Your task to perform on an android device: allow notifications from all sites in the chrome app Image 0: 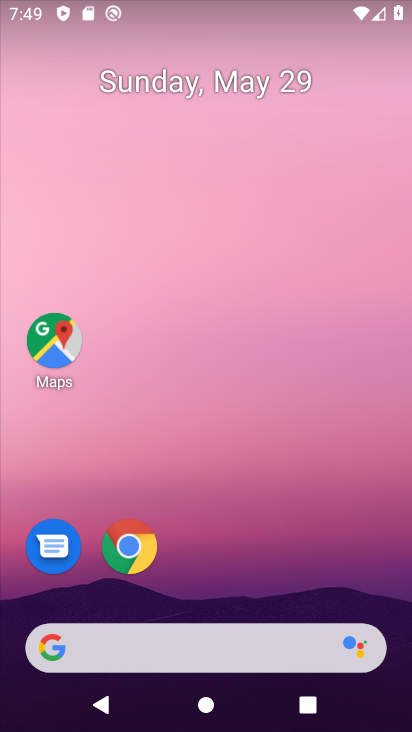
Step 0: drag from (216, 615) to (205, 212)
Your task to perform on an android device: allow notifications from all sites in the chrome app Image 1: 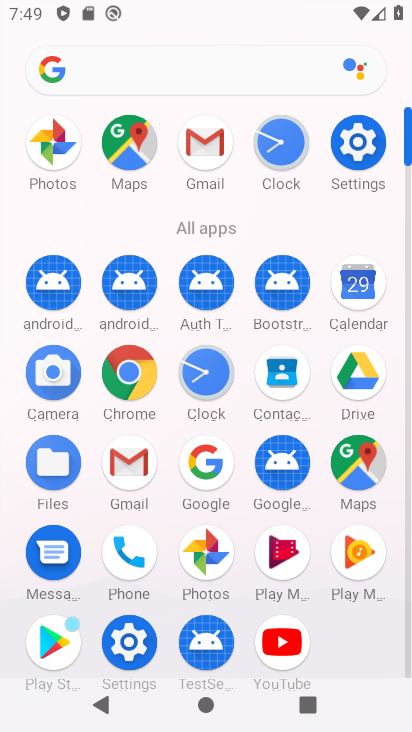
Step 1: click (135, 360)
Your task to perform on an android device: allow notifications from all sites in the chrome app Image 2: 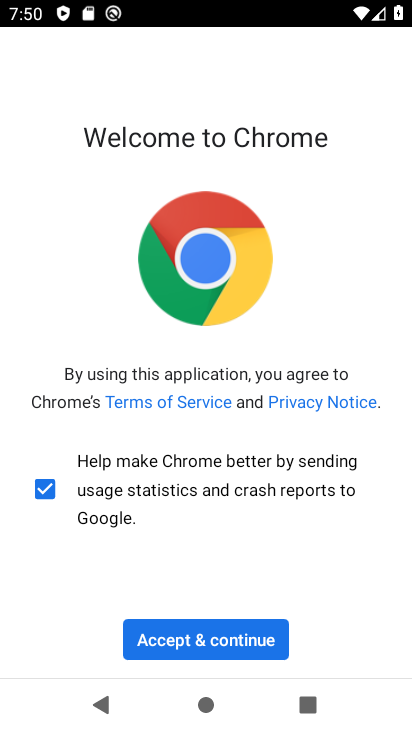
Step 2: click (194, 624)
Your task to perform on an android device: allow notifications from all sites in the chrome app Image 3: 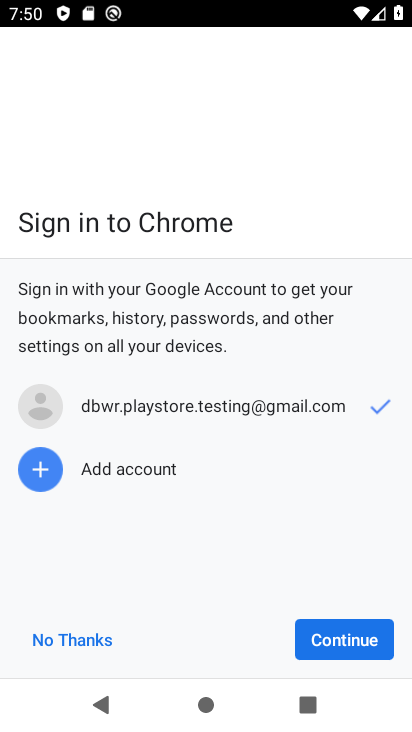
Step 3: click (321, 644)
Your task to perform on an android device: allow notifications from all sites in the chrome app Image 4: 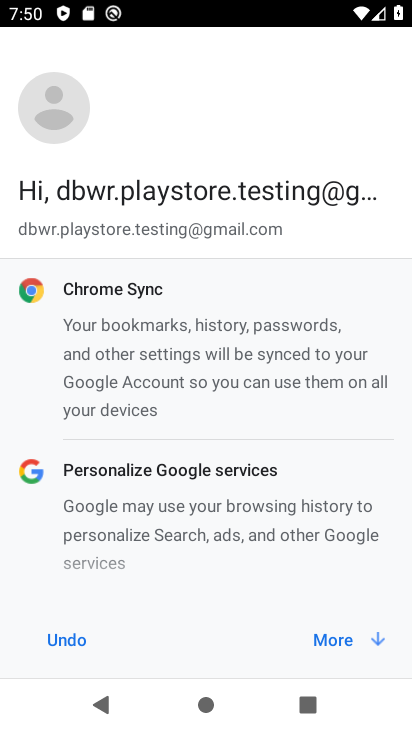
Step 4: click (321, 644)
Your task to perform on an android device: allow notifications from all sites in the chrome app Image 5: 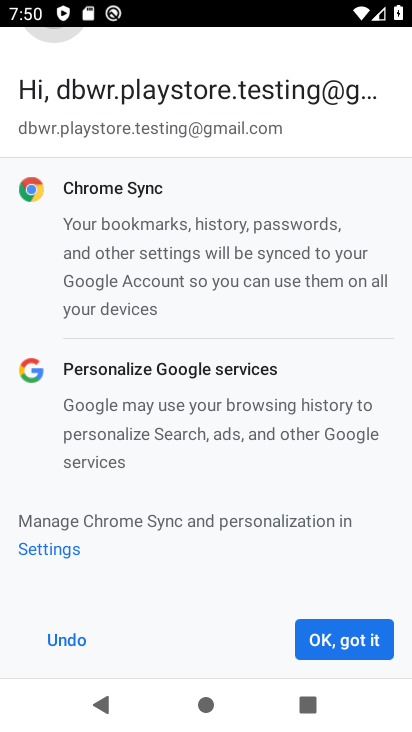
Step 5: click (321, 644)
Your task to perform on an android device: allow notifications from all sites in the chrome app Image 6: 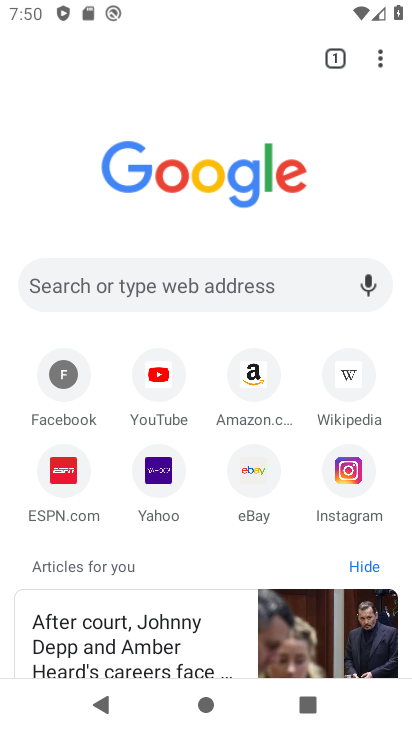
Step 6: click (390, 78)
Your task to perform on an android device: allow notifications from all sites in the chrome app Image 7: 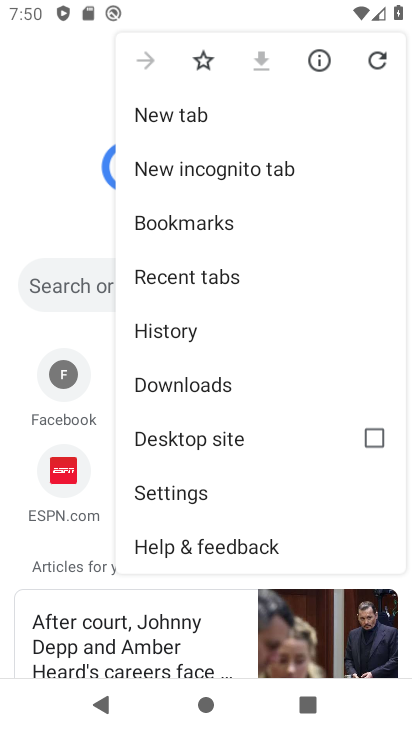
Step 7: click (244, 496)
Your task to perform on an android device: allow notifications from all sites in the chrome app Image 8: 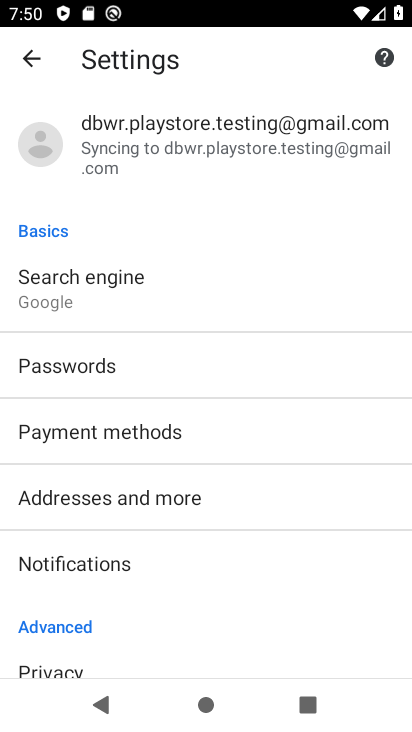
Step 8: drag from (246, 611) to (234, 233)
Your task to perform on an android device: allow notifications from all sites in the chrome app Image 9: 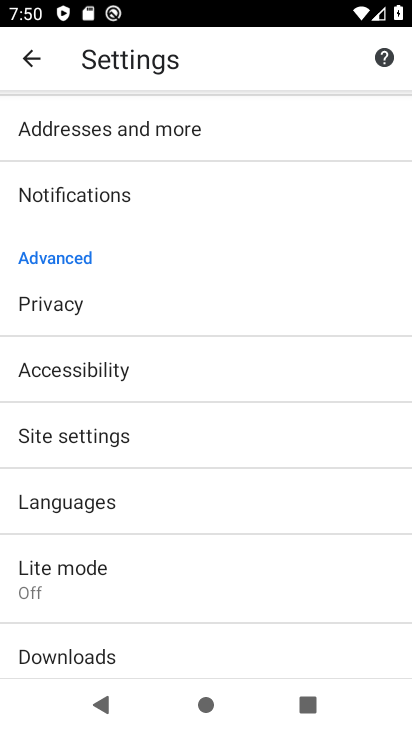
Step 9: click (162, 440)
Your task to perform on an android device: allow notifications from all sites in the chrome app Image 10: 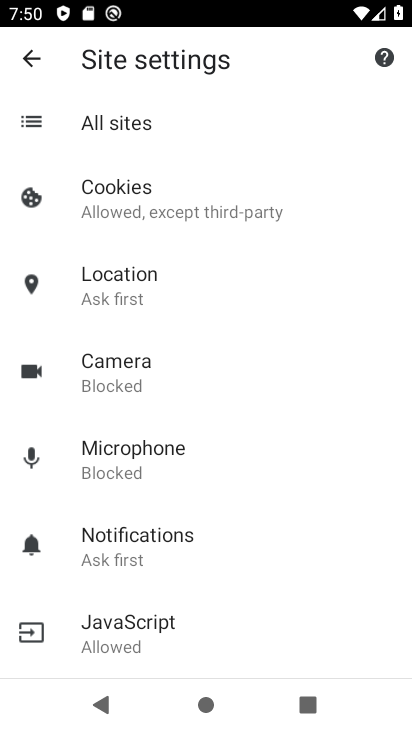
Step 10: click (169, 540)
Your task to perform on an android device: allow notifications from all sites in the chrome app Image 11: 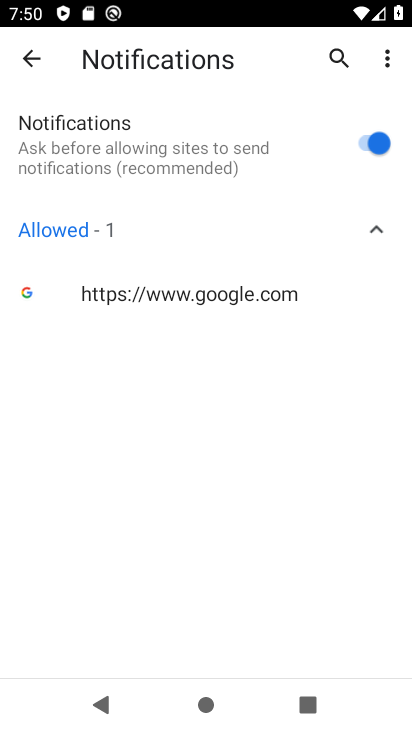
Step 11: task complete